Your task to perform on an android device: What's the news about the US president? Image 0: 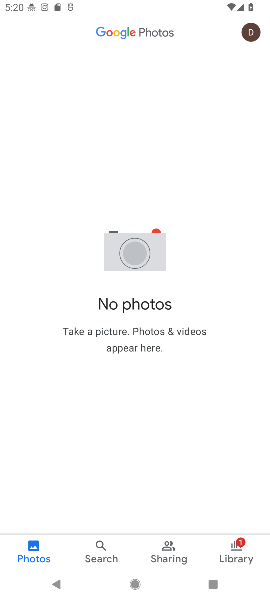
Step 0: press home button
Your task to perform on an android device: What's the news about the US president? Image 1: 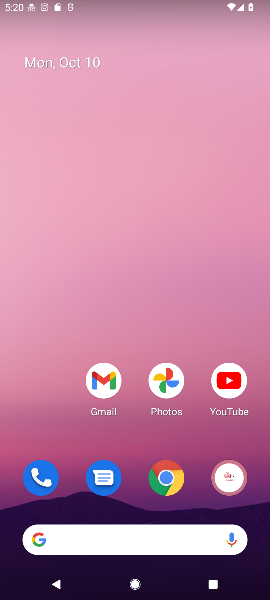
Step 1: click (174, 475)
Your task to perform on an android device: What's the news about the US president? Image 2: 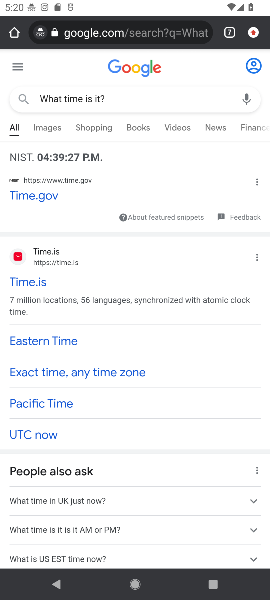
Step 2: click (141, 35)
Your task to perform on an android device: What's the news about the US president? Image 3: 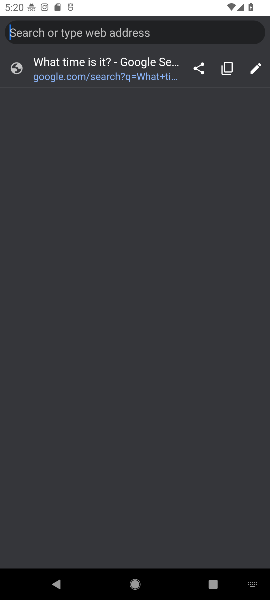
Step 3: type "What's the news about the US president?"
Your task to perform on an android device: What's the news about the US president? Image 4: 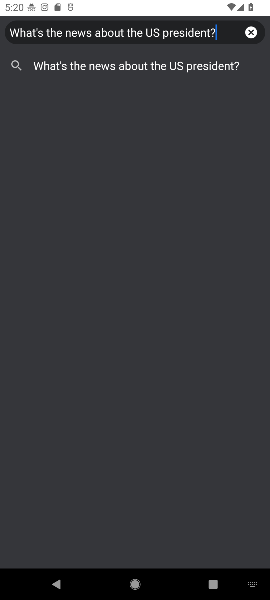
Step 4: click (167, 61)
Your task to perform on an android device: What's the news about the US president? Image 5: 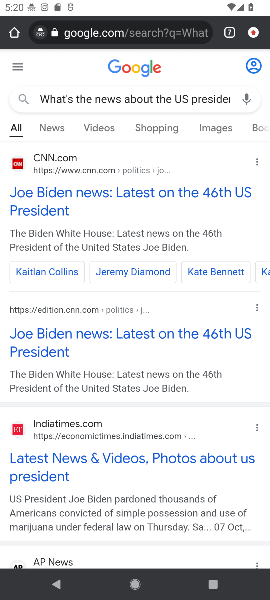
Step 5: click (61, 206)
Your task to perform on an android device: What's the news about the US president? Image 6: 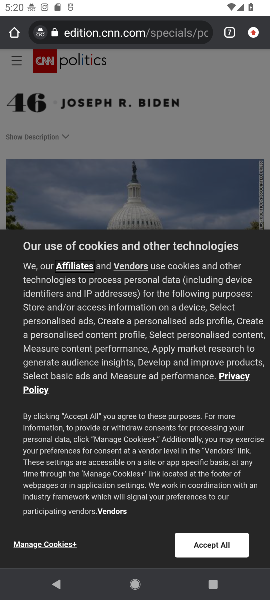
Step 6: click (203, 541)
Your task to perform on an android device: What's the news about the US president? Image 7: 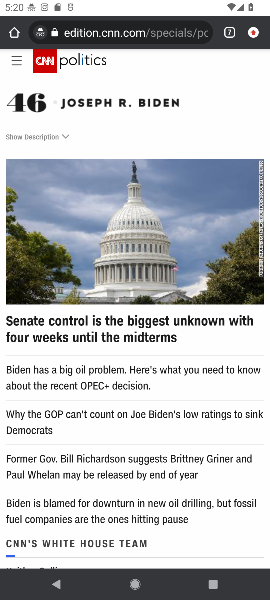
Step 7: task complete